Your task to perform on an android device: open app "Move to iOS" (install if not already installed), go to login, and select forgot password Image 0: 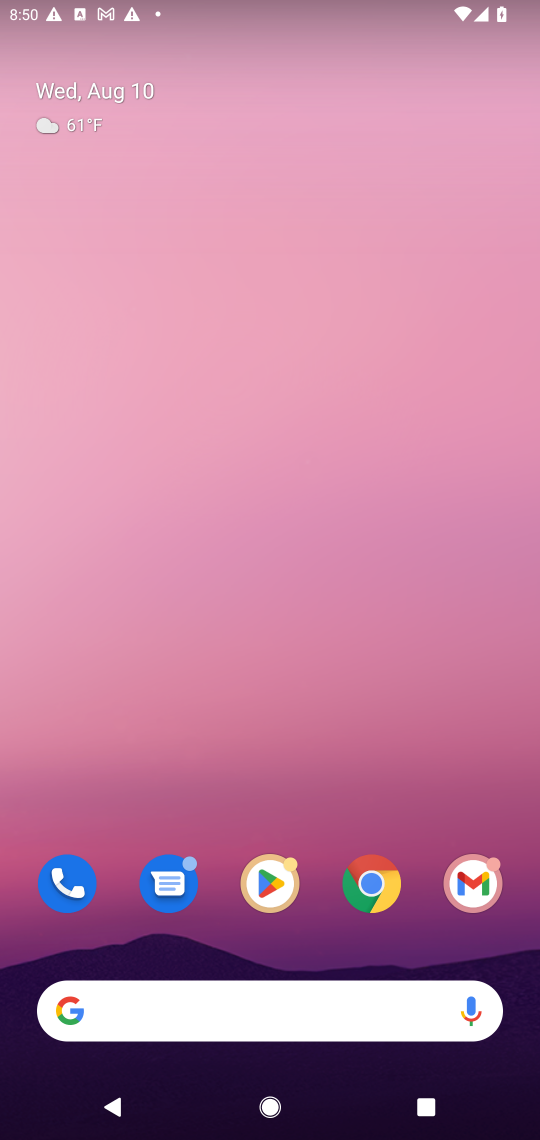
Step 0: click (246, 879)
Your task to perform on an android device: open app "Move to iOS" (install if not already installed), go to login, and select forgot password Image 1: 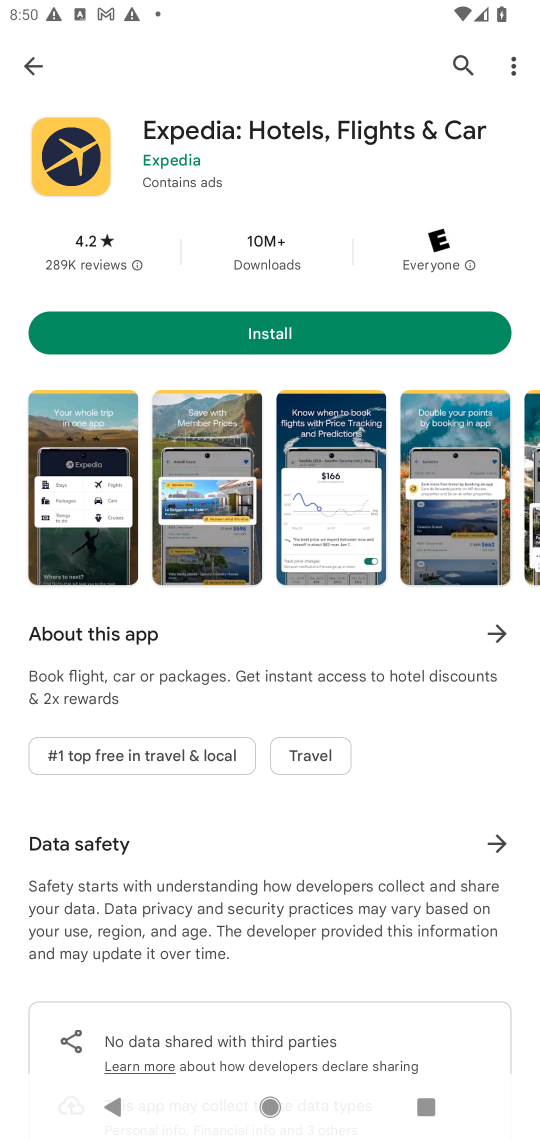
Step 1: click (454, 56)
Your task to perform on an android device: open app "Move to iOS" (install if not already installed), go to login, and select forgot password Image 2: 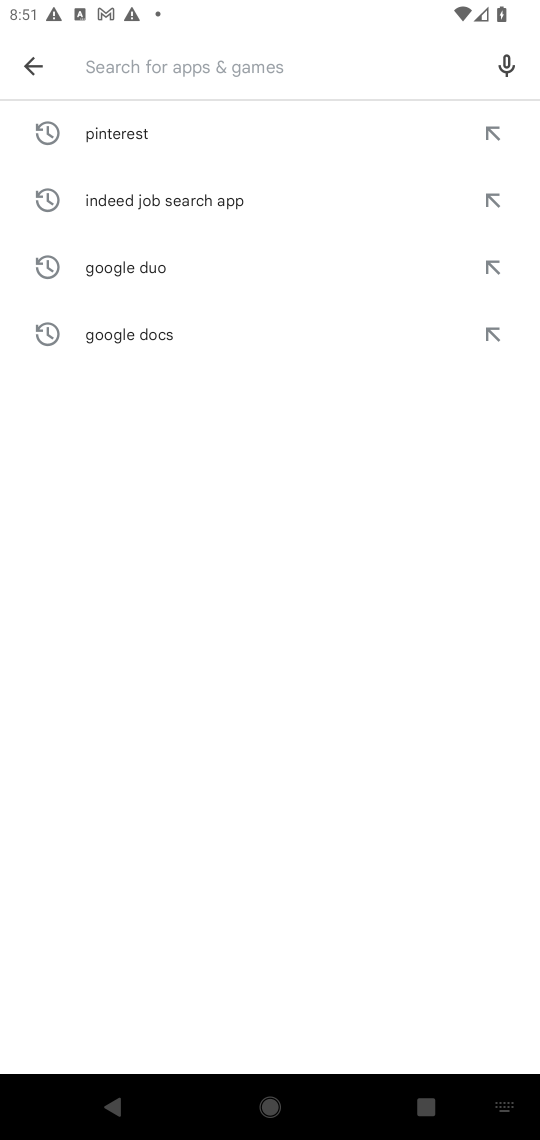
Step 2: type "Move to iOS"
Your task to perform on an android device: open app "Move to iOS" (install if not already installed), go to login, and select forgot password Image 3: 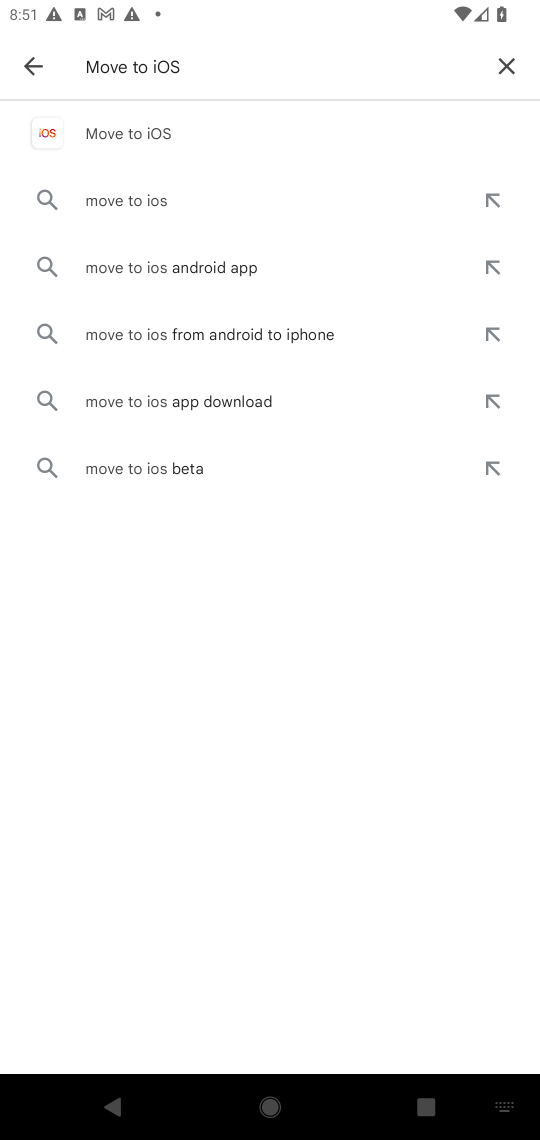
Step 3: click (197, 127)
Your task to perform on an android device: open app "Move to iOS" (install if not already installed), go to login, and select forgot password Image 4: 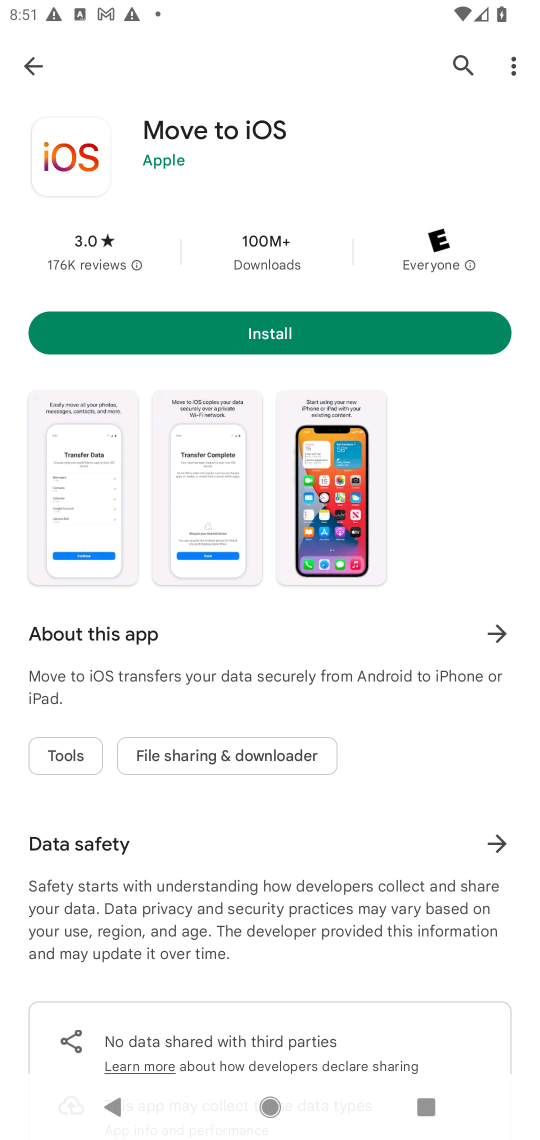
Step 4: click (268, 326)
Your task to perform on an android device: open app "Move to iOS" (install if not already installed), go to login, and select forgot password Image 5: 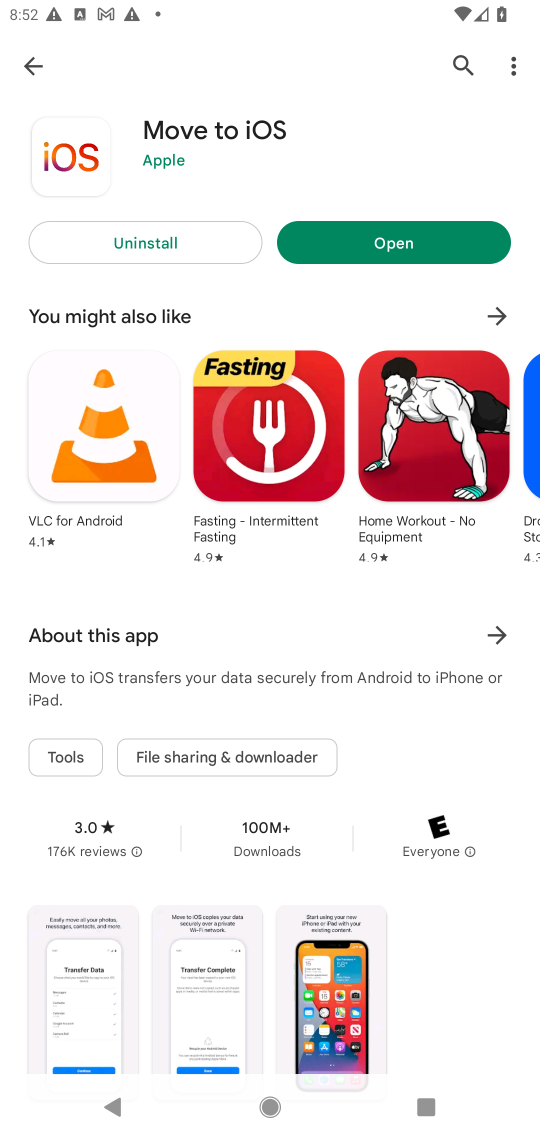
Step 5: click (370, 233)
Your task to perform on an android device: open app "Move to iOS" (install if not already installed), go to login, and select forgot password Image 6: 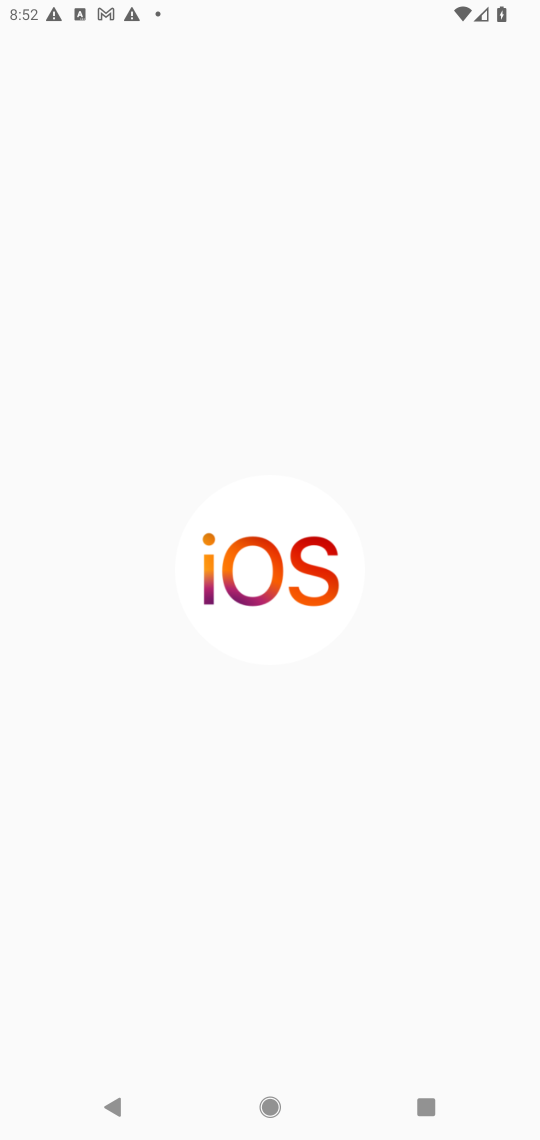
Step 6: task complete